Your task to perform on an android device: Check the news Image 0: 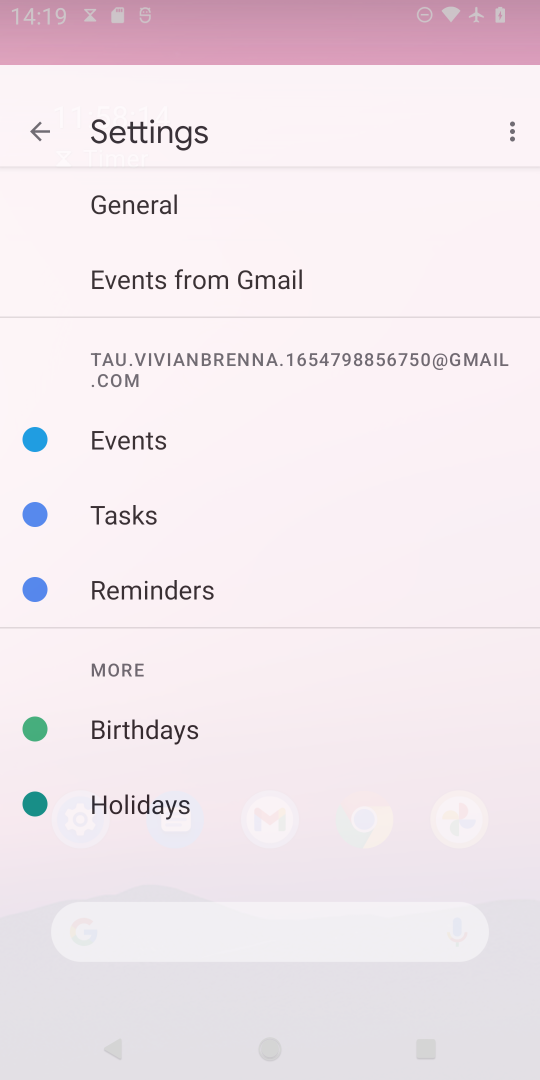
Step 0: press home button
Your task to perform on an android device: Check the news Image 1: 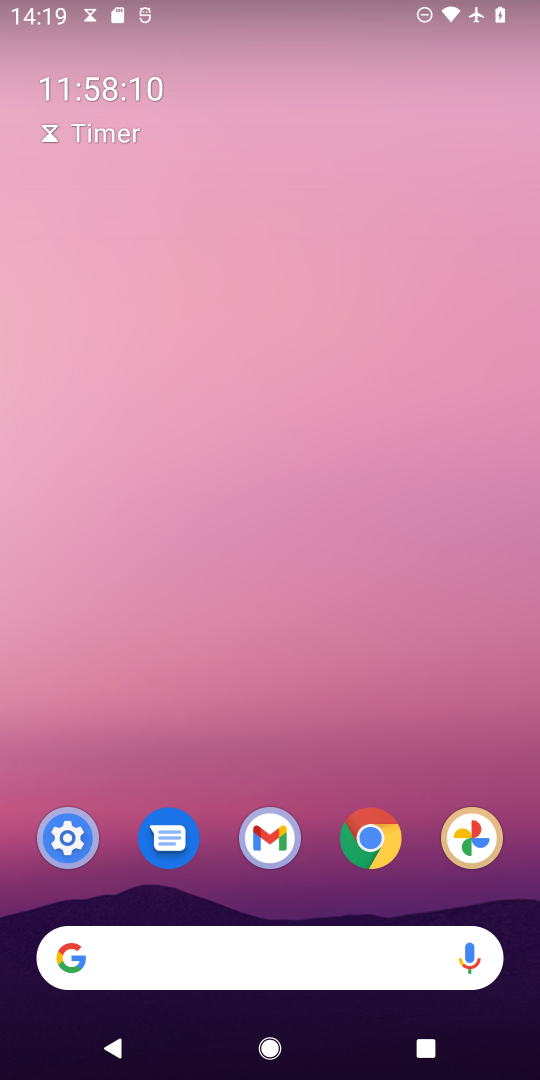
Step 1: click (56, 976)
Your task to perform on an android device: Check the news Image 2: 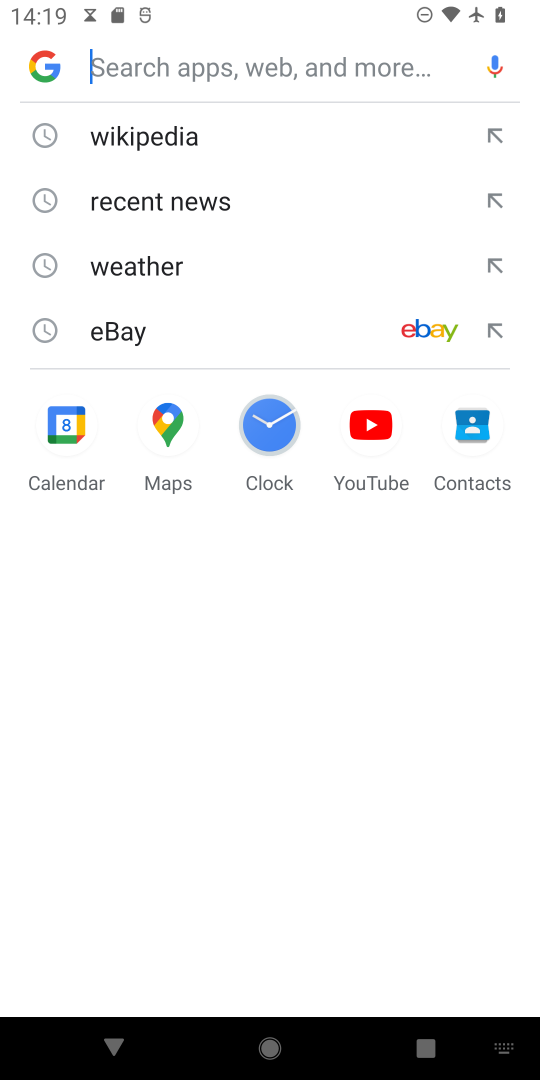
Step 2: type " news"
Your task to perform on an android device: Check the news Image 3: 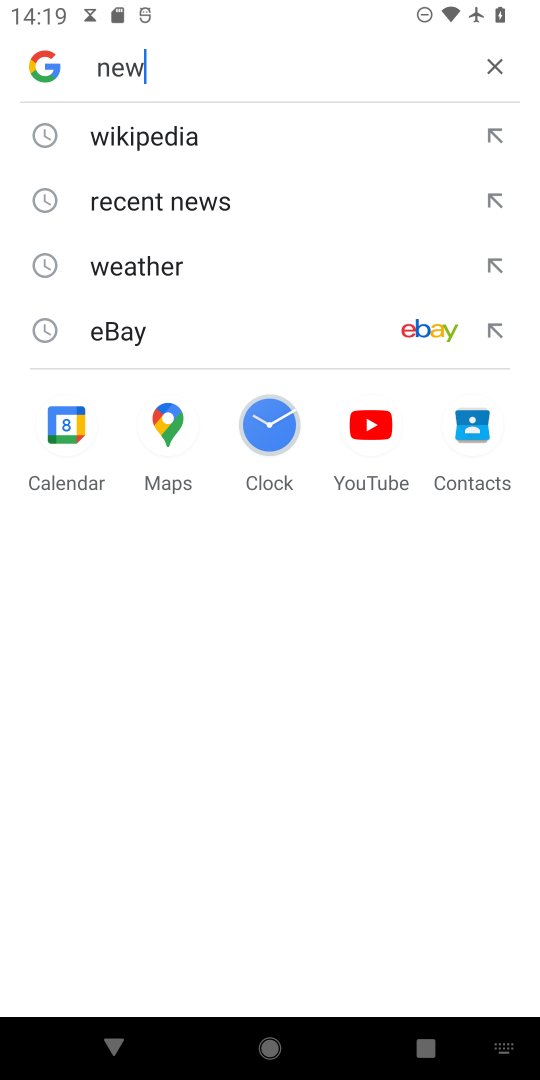
Step 3: press enter
Your task to perform on an android device: Check the news Image 4: 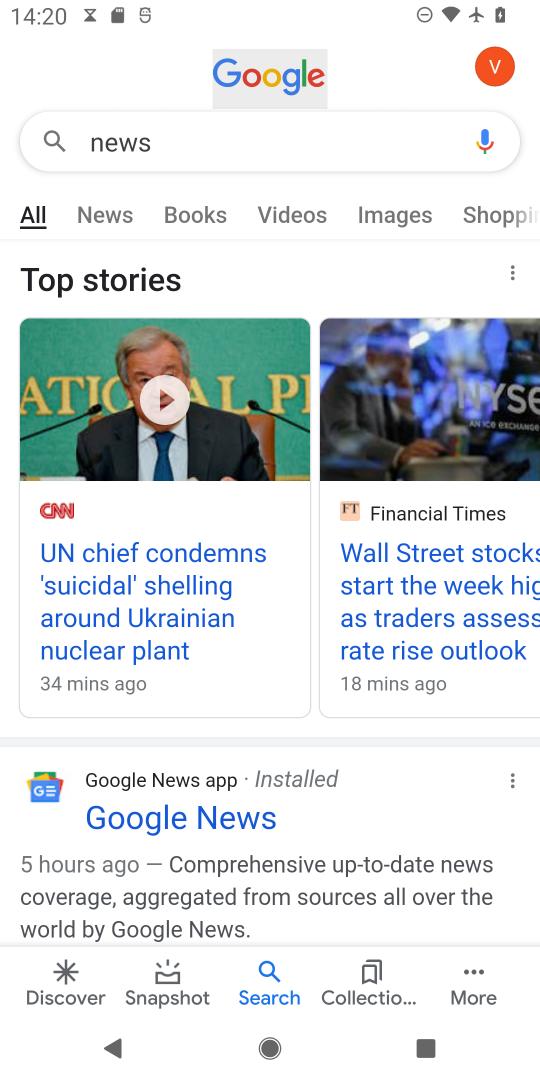
Step 4: task complete